Your task to perform on an android device: open wifi settings Image 0: 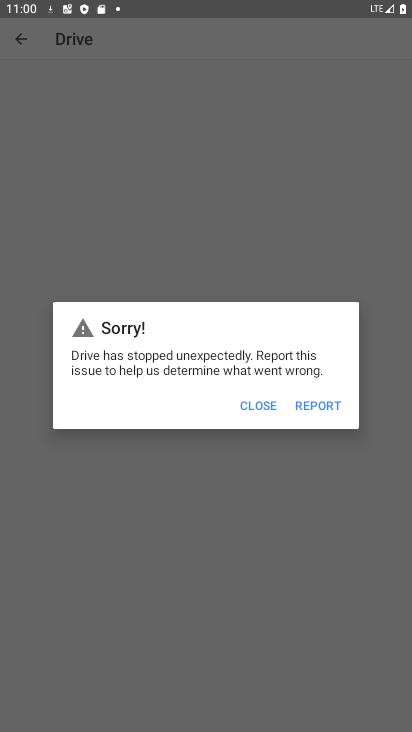
Step 0: drag from (218, 702) to (322, 438)
Your task to perform on an android device: open wifi settings Image 1: 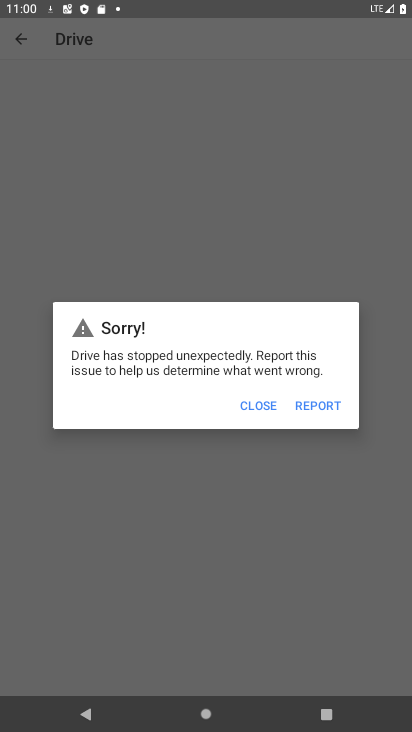
Step 1: press home button
Your task to perform on an android device: open wifi settings Image 2: 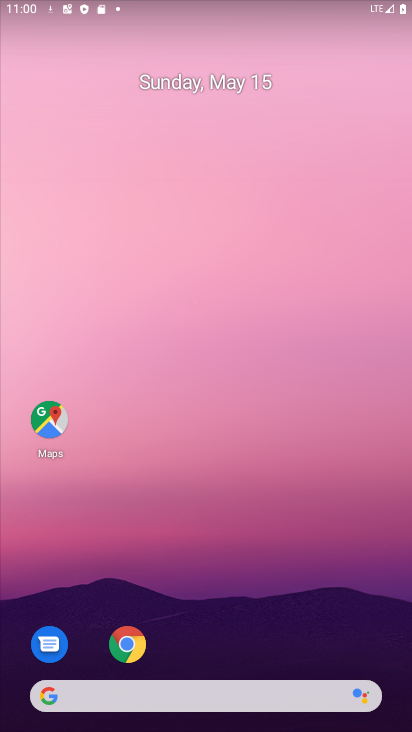
Step 2: drag from (276, 710) to (253, 290)
Your task to perform on an android device: open wifi settings Image 3: 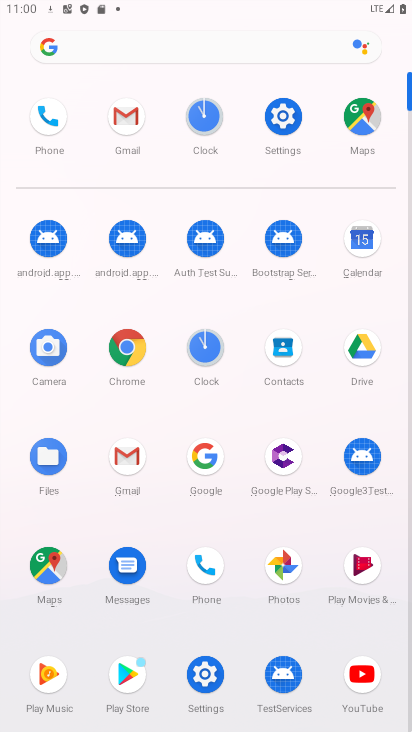
Step 3: click (263, 109)
Your task to perform on an android device: open wifi settings Image 4: 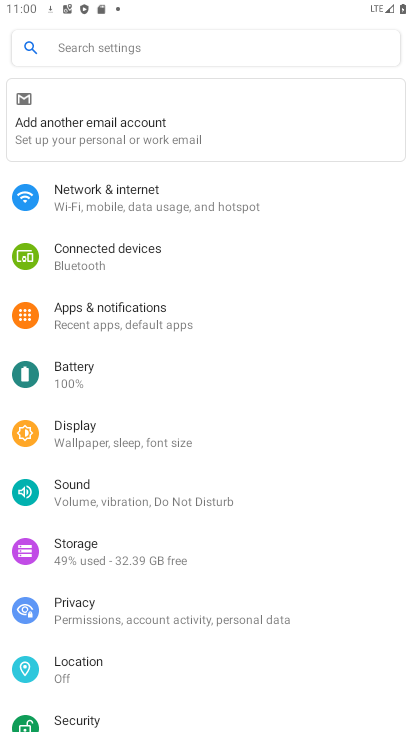
Step 4: click (145, 201)
Your task to perform on an android device: open wifi settings Image 5: 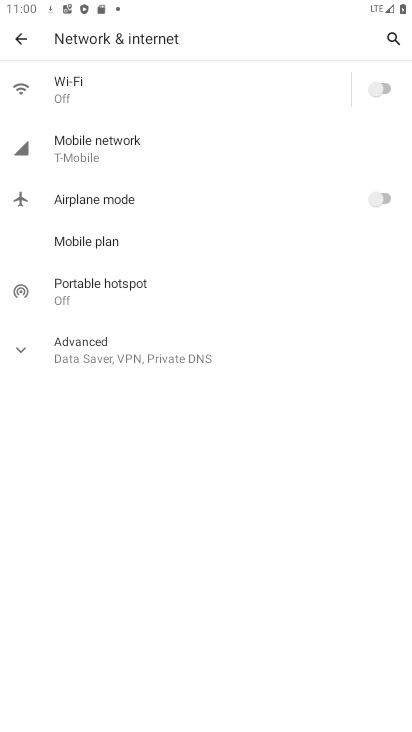
Step 5: click (127, 97)
Your task to perform on an android device: open wifi settings Image 6: 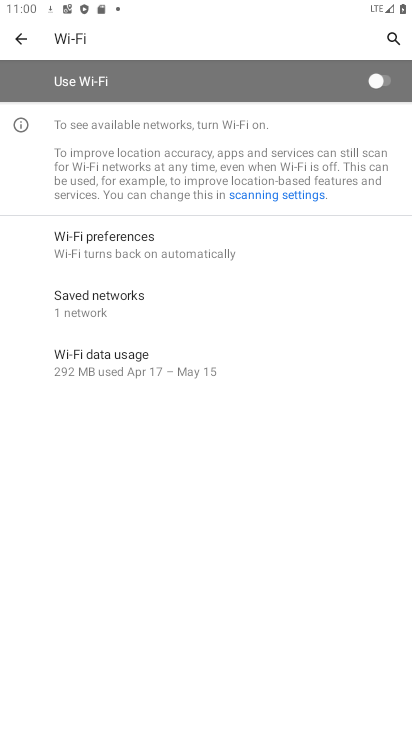
Step 6: task complete